Your task to perform on an android device: change the clock display to digital Image 0: 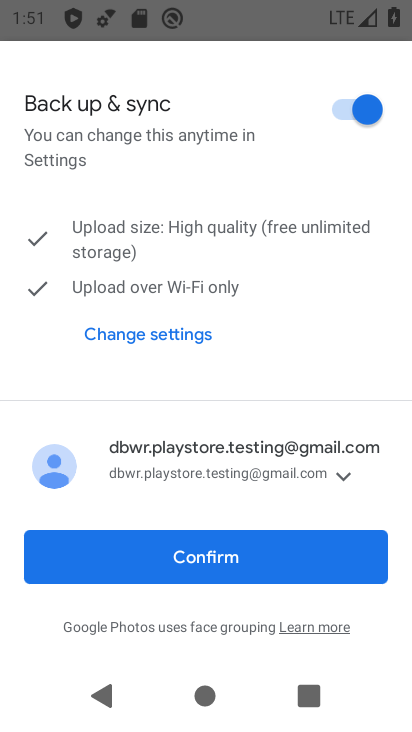
Step 0: press home button
Your task to perform on an android device: change the clock display to digital Image 1: 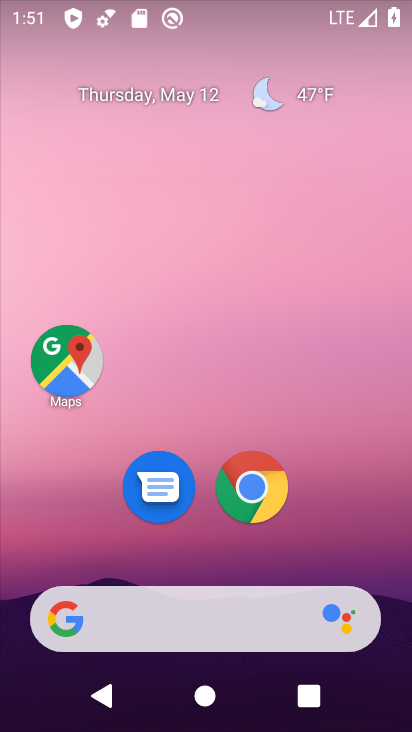
Step 1: drag from (358, 503) to (346, 37)
Your task to perform on an android device: change the clock display to digital Image 2: 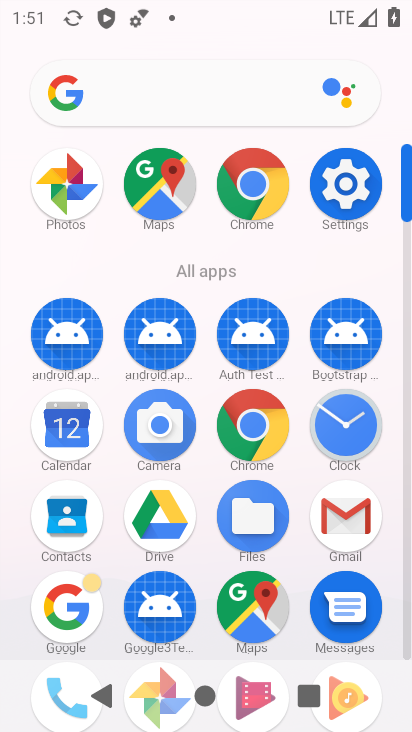
Step 2: click (343, 447)
Your task to perform on an android device: change the clock display to digital Image 3: 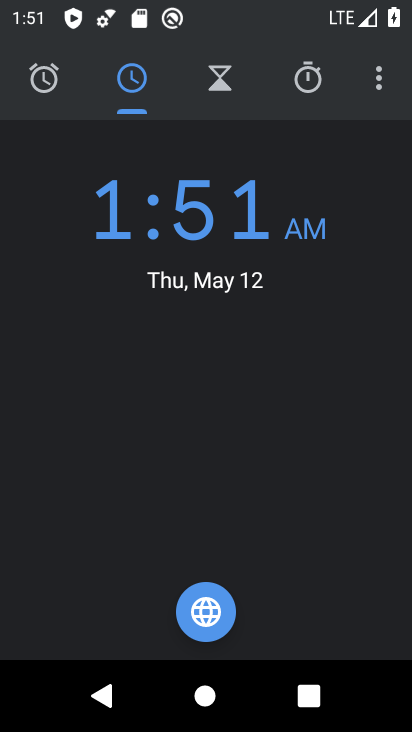
Step 3: click (381, 73)
Your task to perform on an android device: change the clock display to digital Image 4: 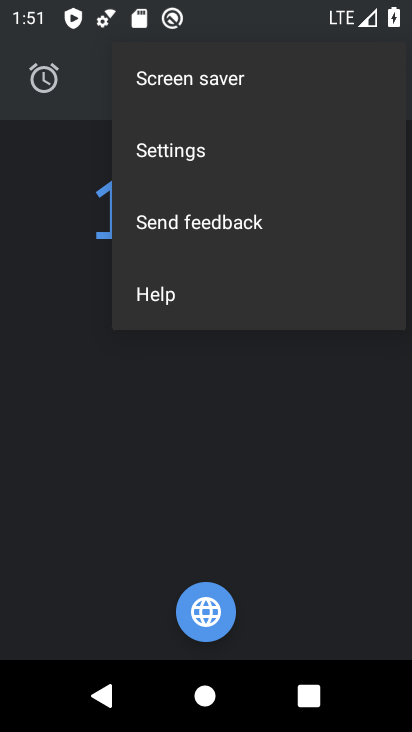
Step 4: click (251, 153)
Your task to perform on an android device: change the clock display to digital Image 5: 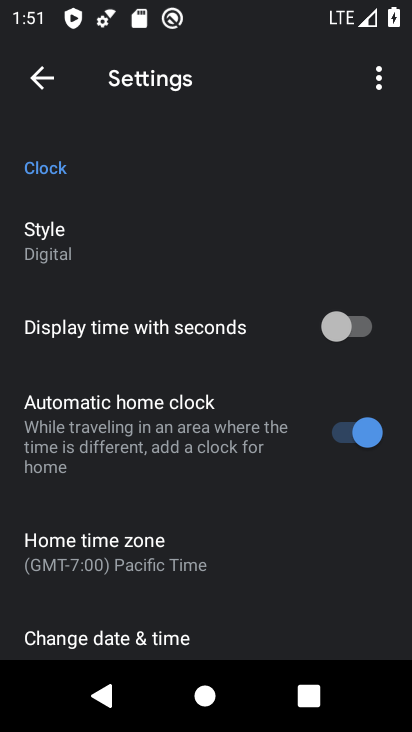
Step 5: click (52, 232)
Your task to perform on an android device: change the clock display to digital Image 6: 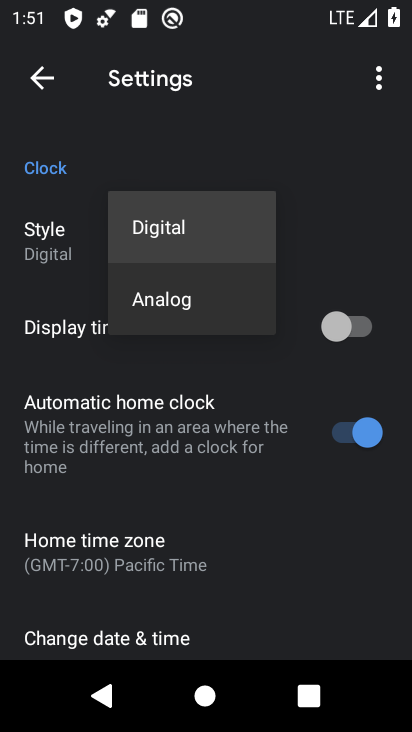
Step 6: task complete